Your task to perform on an android device: turn notification dots on Image 0: 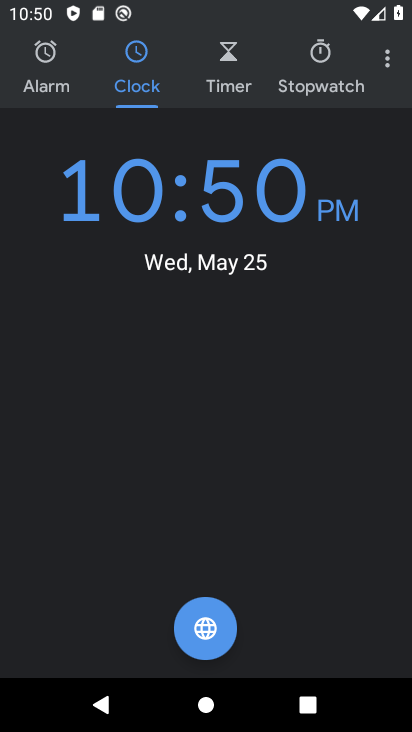
Step 0: press home button
Your task to perform on an android device: turn notification dots on Image 1: 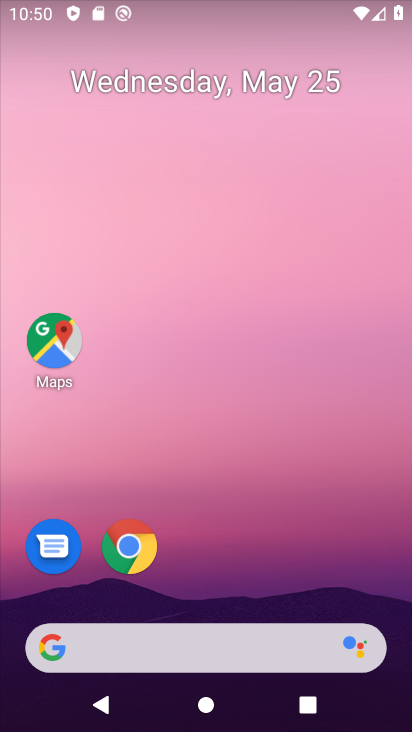
Step 1: drag from (372, 515) to (339, 13)
Your task to perform on an android device: turn notification dots on Image 2: 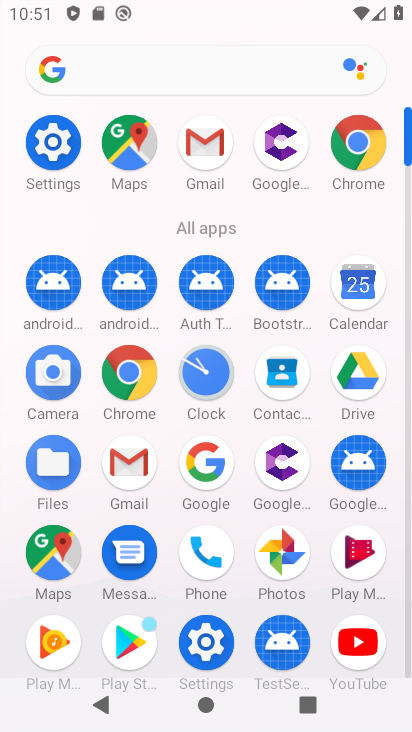
Step 2: click (220, 650)
Your task to perform on an android device: turn notification dots on Image 3: 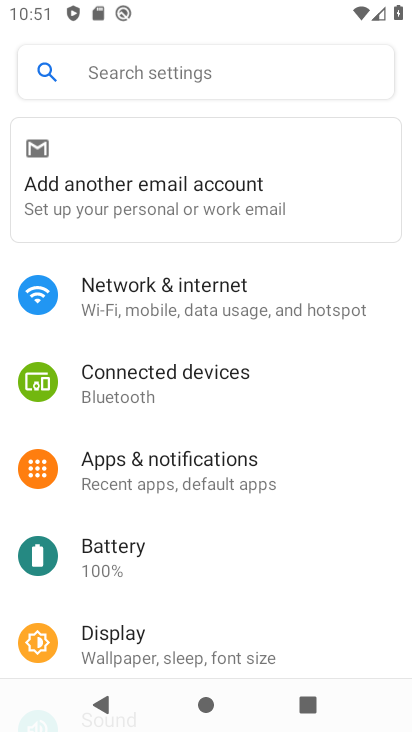
Step 3: click (235, 491)
Your task to perform on an android device: turn notification dots on Image 4: 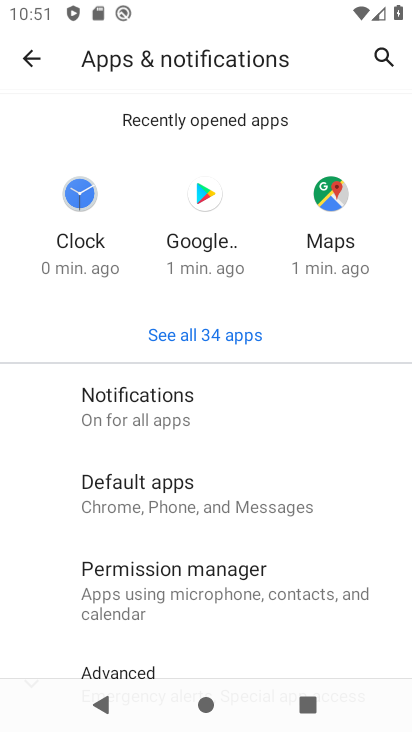
Step 4: click (138, 424)
Your task to perform on an android device: turn notification dots on Image 5: 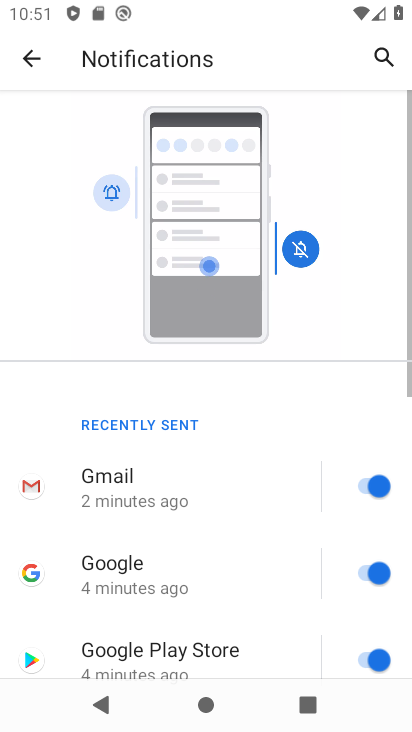
Step 5: drag from (239, 631) to (226, 249)
Your task to perform on an android device: turn notification dots on Image 6: 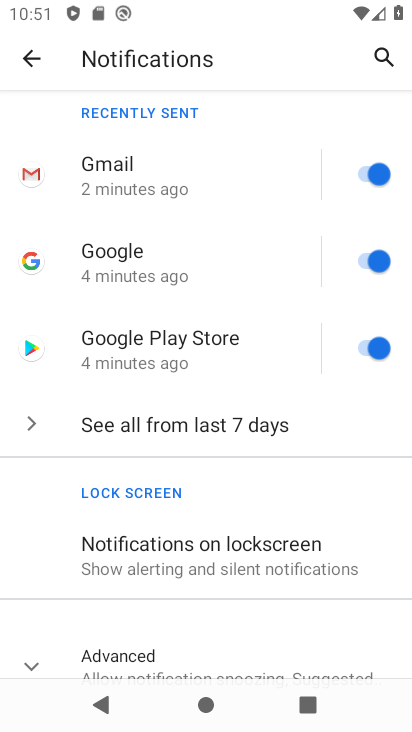
Step 6: drag from (254, 602) to (250, 268)
Your task to perform on an android device: turn notification dots on Image 7: 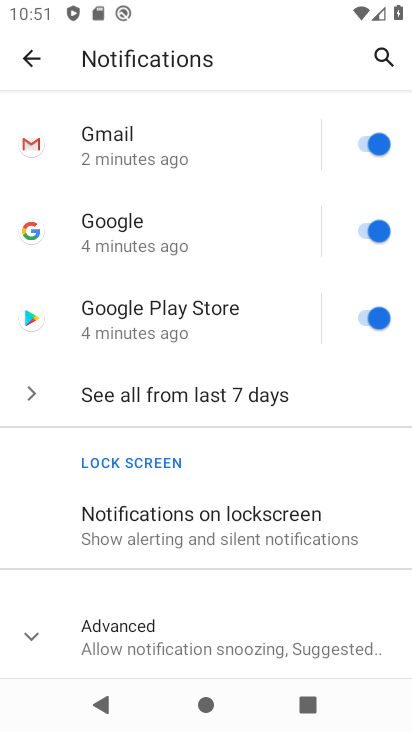
Step 7: click (243, 656)
Your task to perform on an android device: turn notification dots on Image 8: 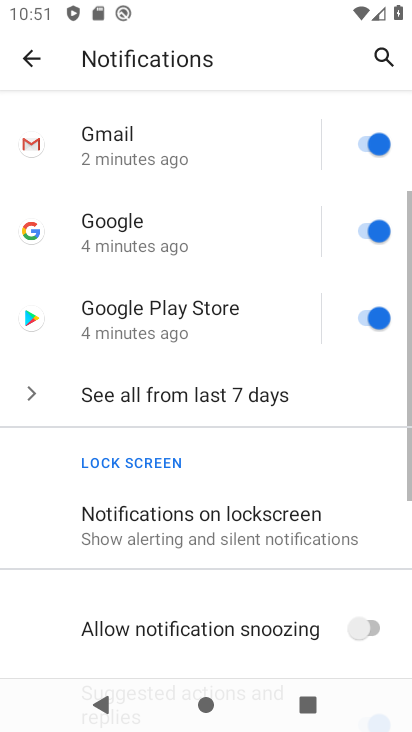
Step 8: task complete